Your task to perform on an android device: turn on the 12-hour format for clock Image 0: 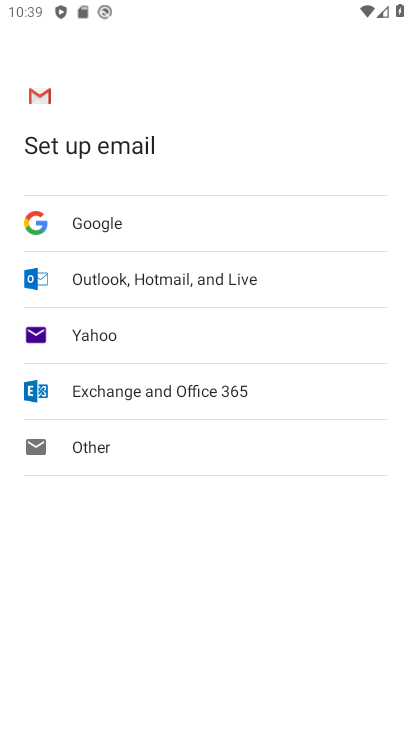
Step 0: press home button
Your task to perform on an android device: turn on the 12-hour format for clock Image 1: 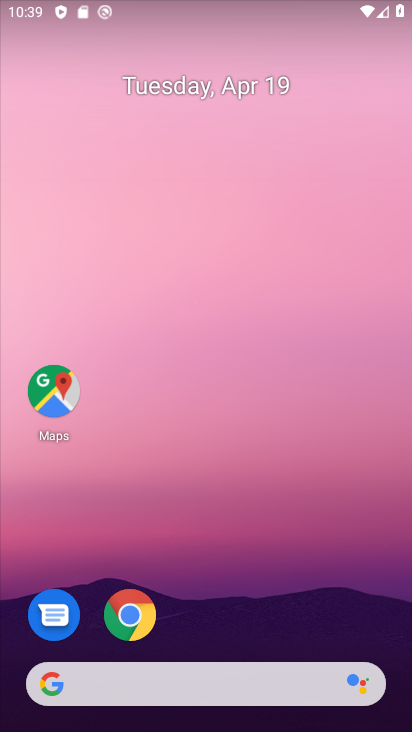
Step 1: drag from (218, 603) to (231, 53)
Your task to perform on an android device: turn on the 12-hour format for clock Image 2: 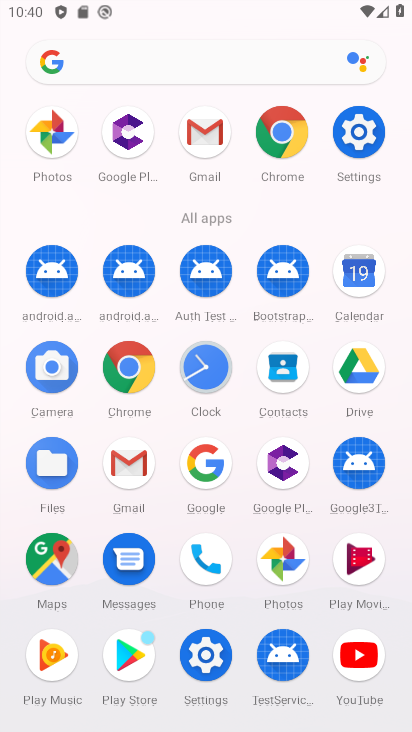
Step 2: click (200, 376)
Your task to perform on an android device: turn on the 12-hour format for clock Image 3: 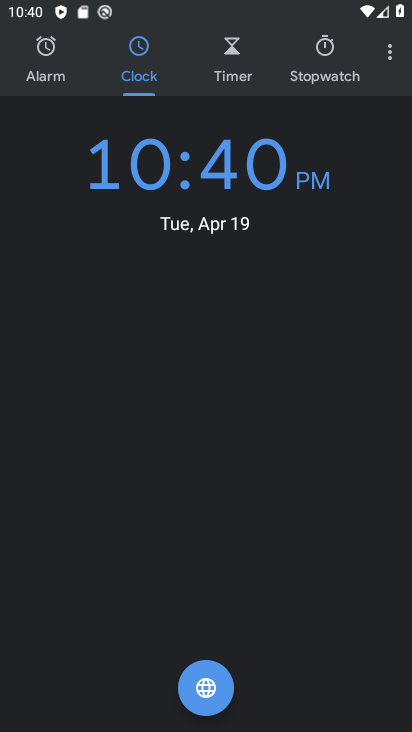
Step 3: click (389, 50)
Your task to perform on an android device: turn on the 12-hour format for clock Image 4: 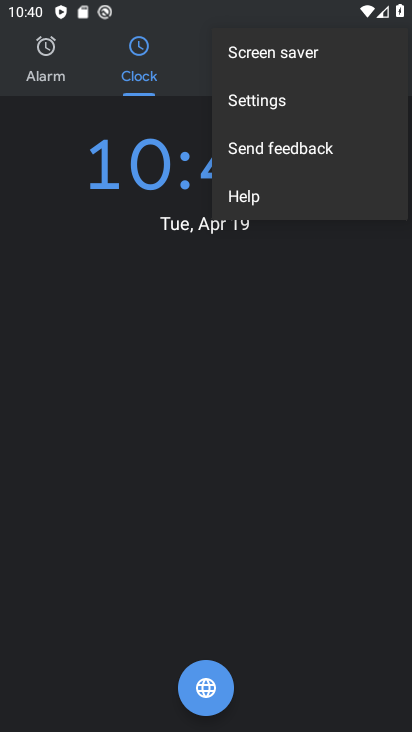
Step 4: click (278, 110)
Your task to perform on an android device: turn on the 12-hour format for clock Image 5: 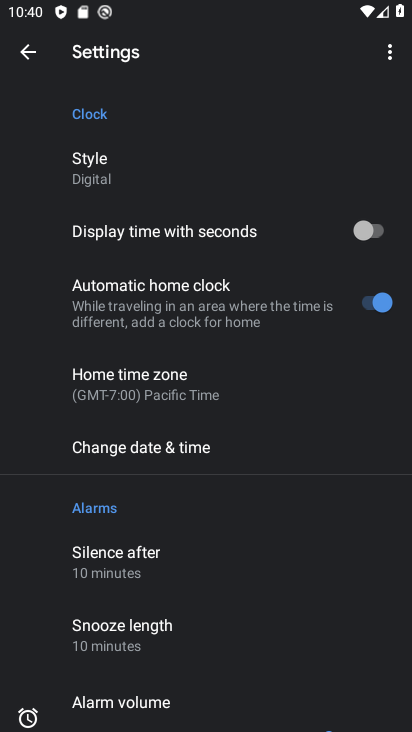
Step 5: drag from (220, 658) to (236, 465)
Your task to perform on an android device: turn on the 12-hour format for clock Image 6: 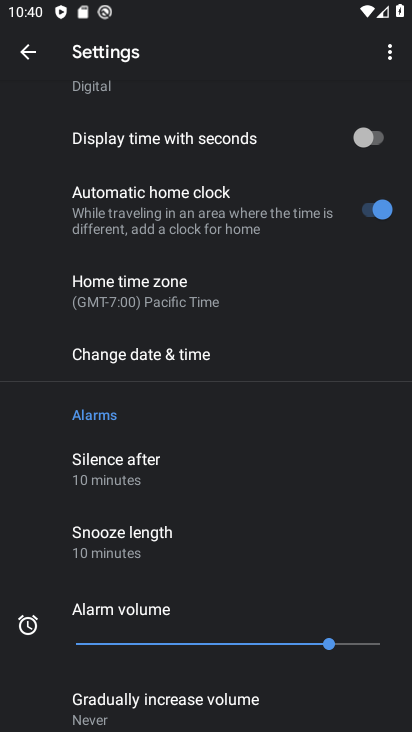
Step 6: click (183, 361)
Your task to perform on an android device: turn on the 12-hour format for clock Image 7: 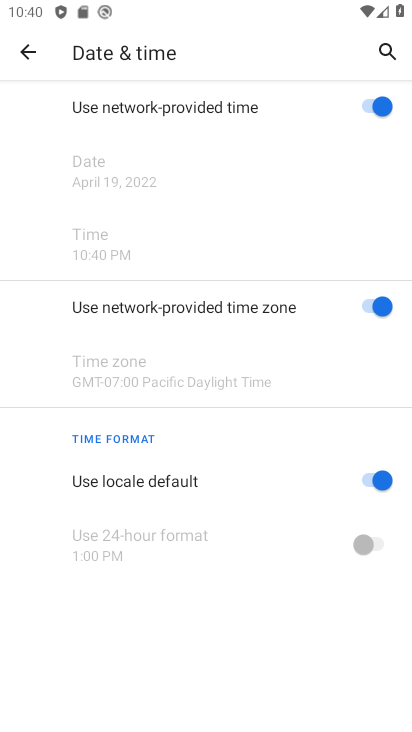
Step 7: task complete